Your task to perform on an android device: Search for seafood restaurants on Google Maps Image 0: 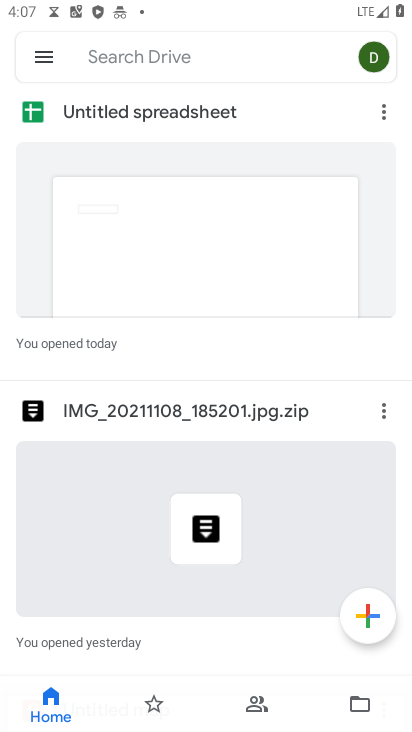
Step 0: drag from (247, 637) to (244, 97)
Your task to perform on an android device: Search for seafood restaurants on Google Maps Image 1: 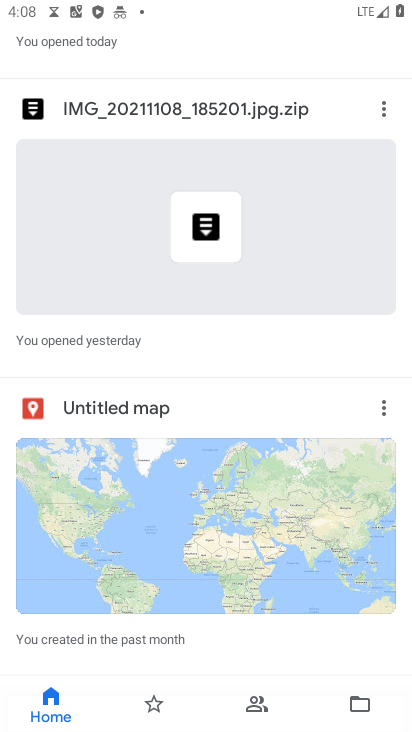
Step 1: press back button
Your task to perform on an android device: Search for seafood restaurants on Google Maps Image 2: 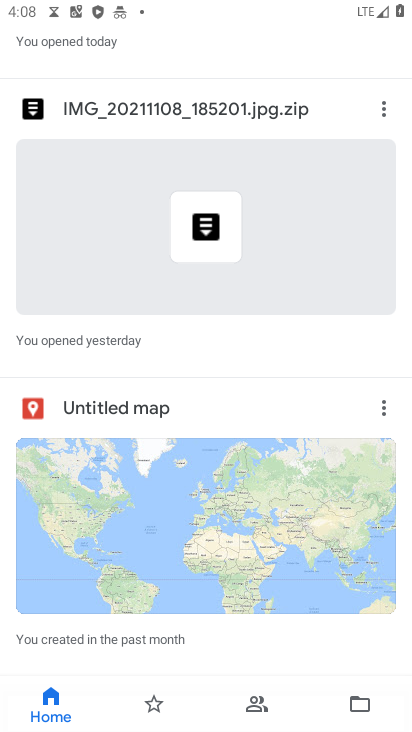
Step 2: press back button
Your task to perform on an android device: Search for seafood restaurants on Google Maps Image 3: 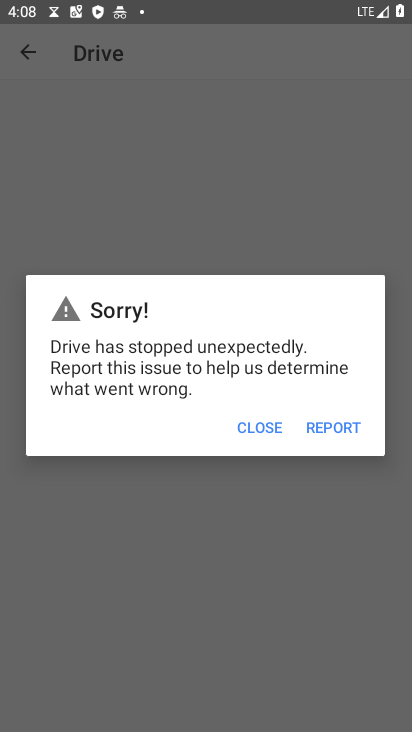
Step 3: click (249, 427)
Your task to perform on an android device: Search for seafood restaurants on Google Maps Image 4: 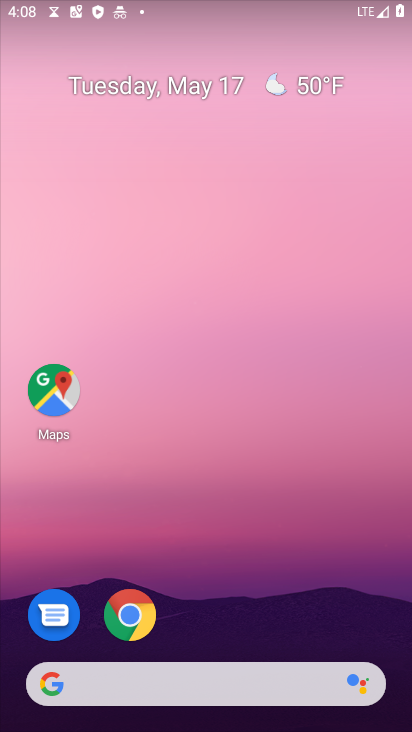
Step 4: drag from (268, 583) to (246, 85)
Your task to perform on an android device: Search for seafood restaurants on Google Maps Image 5: 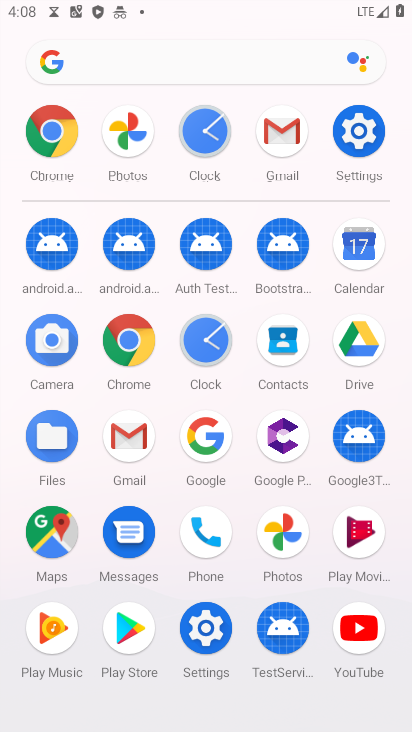
Step 5: click (50, 538)
Your task to perform on an android device: Search for seafood restaurants on Google Maps Image 6: 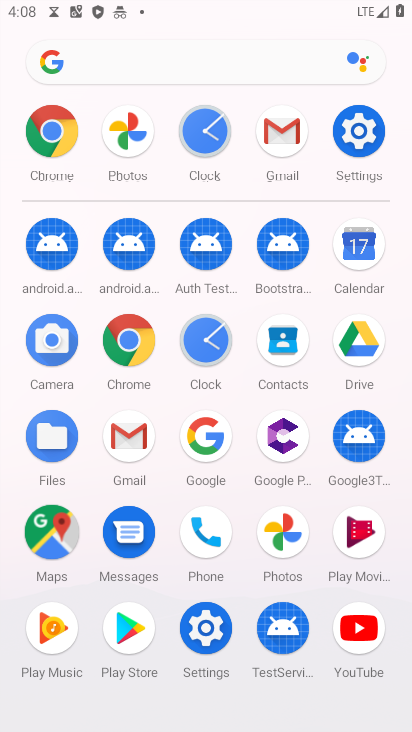
Step 6: click (50, 538)
Your task to perform on an android device: Search for seafood restaurants on Google Maps Image 7: 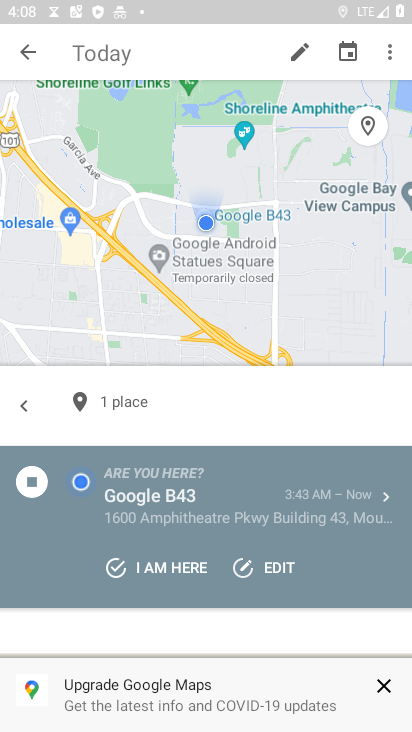
Step 7: click (32, 48)
Your task to perform on an android device: Search for seafood restaurants on Google Maps Image 8: 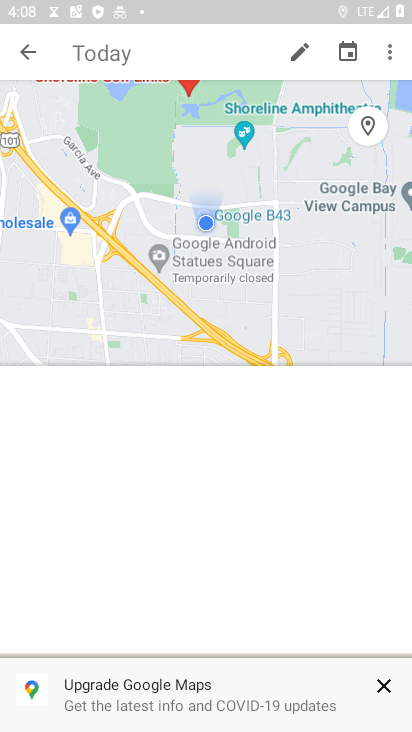
Step 8: click (91, 47)
Your task to perform on an android device: Search for seafood restaurants on Google Maps Image 9: 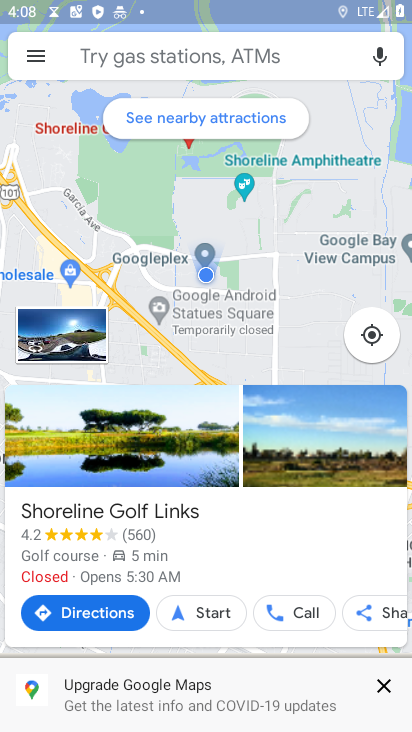
Step 9: click (88, 52)
Your task to perform on an android device: Search for seafood restaurants on Google Maps Image 10: 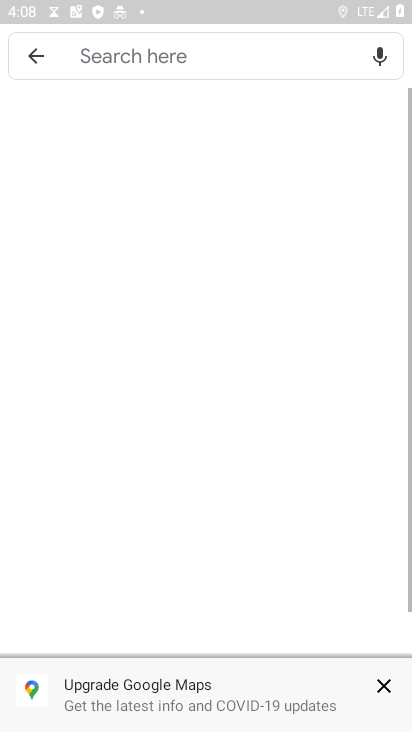
Step 10: click (99, 52)
Your task to perform on an android device: Search for seafood restaurants on Google Maps Image 11: 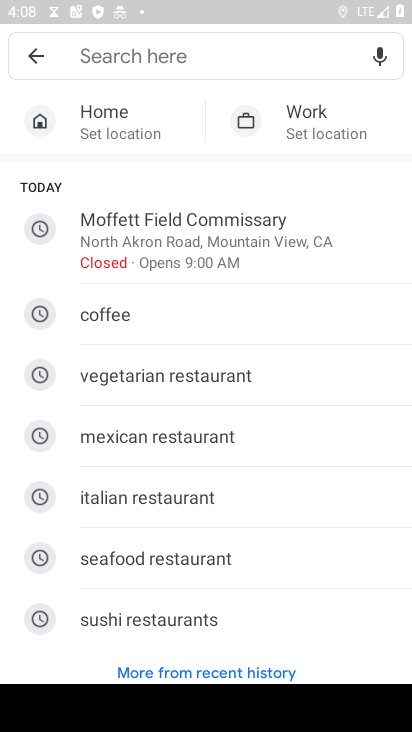
Step 11: click (155, 561)
Your task to perform on an android device: Search for seafood restaurants on Google Maps Image 12: 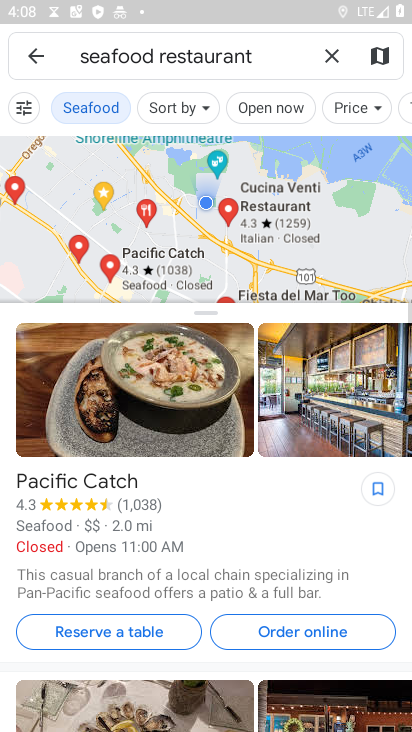
Step 12: task complete